Your task to perform on an android device: delete a single message in the gmail app Image 0: 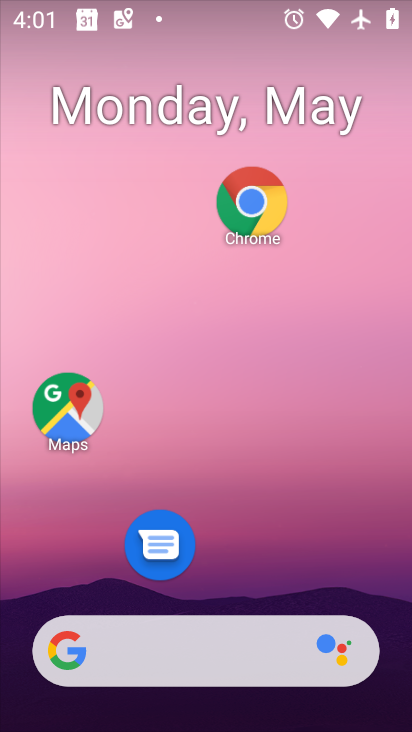
Step 0: drag from (249, 587) to (257, 136)
Your task to perform on an android device: delete a single message in the gmail app Image 1: 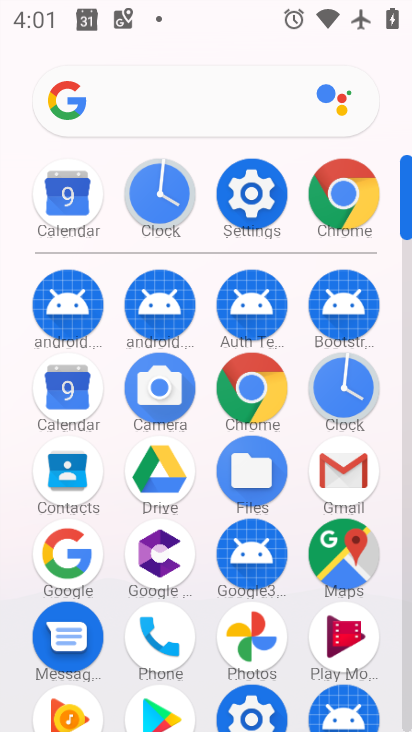
Step 1: click (336, 486)
Your task to perform on an android device: delete a single message in the gmail app Image 2: 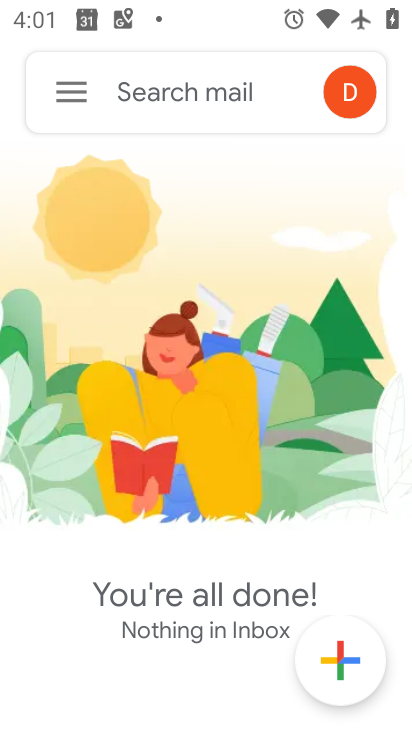
Step 2: click (80, 101)
Your task to perform on an android device: delete a single message in the gmail app Image 3: 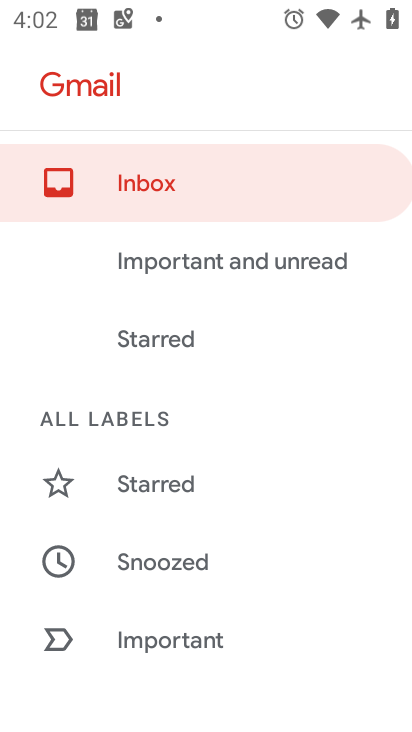
Step 3: click (158, 187)
Your task to perform on an android device: delete a single message in the gmail app Image 4: 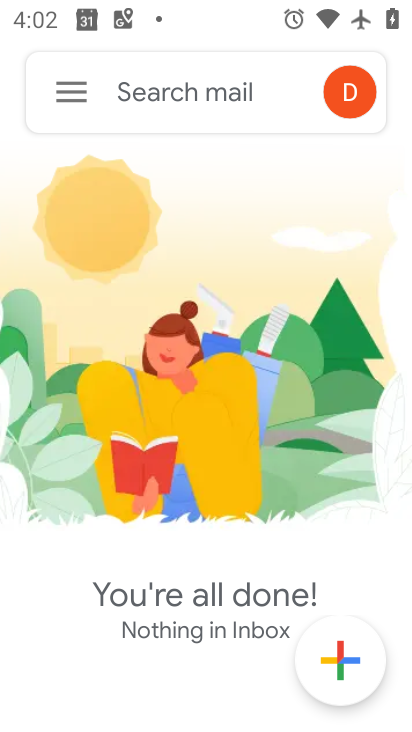
Step 4: task complete